Your task to perform on an android device: change the clock style Image 0: 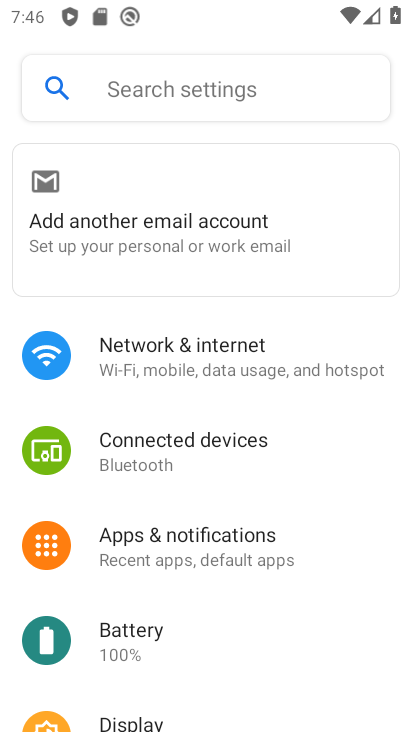
Step 0: press home button
Your task to perform on an android device: change the clock style Image 1: 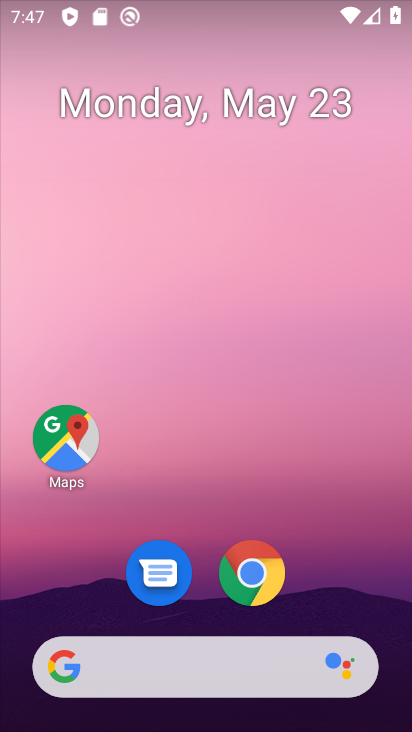
Step 1: drag from (327, 573) to (331, 129)
Your task to perform on an android device: change the clock style Image 2: 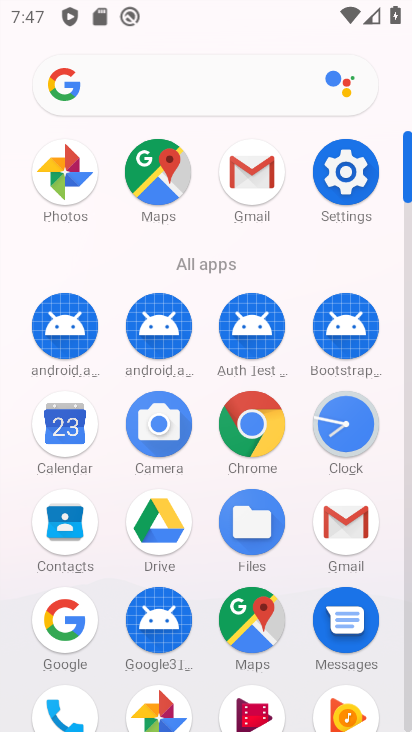
Step 2: click (354, 425)
Your task to perform on an android device: change the clock style Image 3: 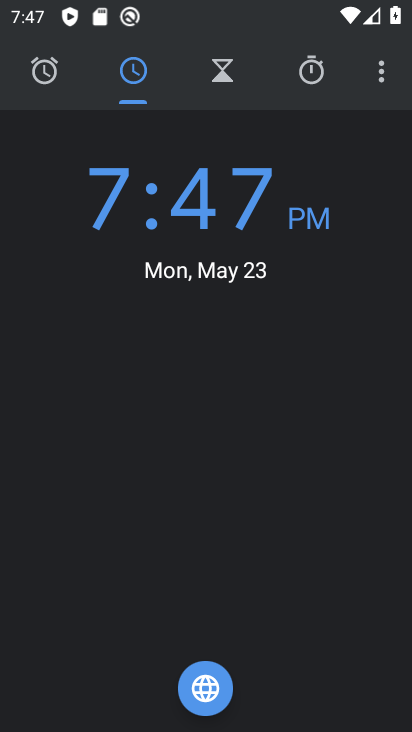
Step 3: click (373, 71)
Your task to perform on an android device: change the clock style Image 4: 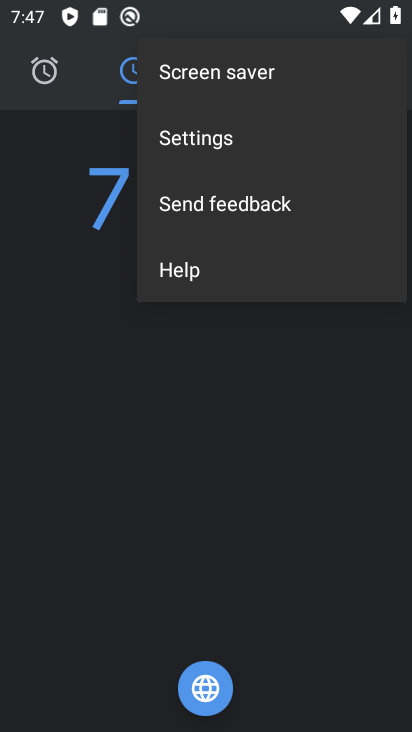
Step 4: click (258, 152)
Your task to perform on an android device: change the clock style Image 5: 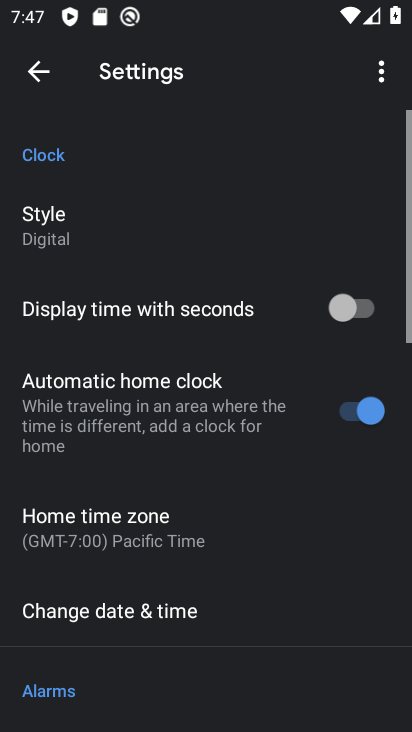
Step 5: click (139, 239)
Your task to perform on an android device: change the clock style Image 6: 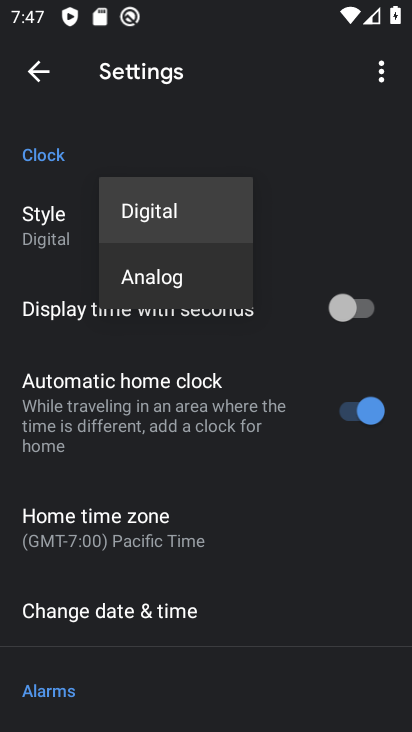
Step 6: click (165, 274)
Your task to perform on an android device: change the clock style Image 7: 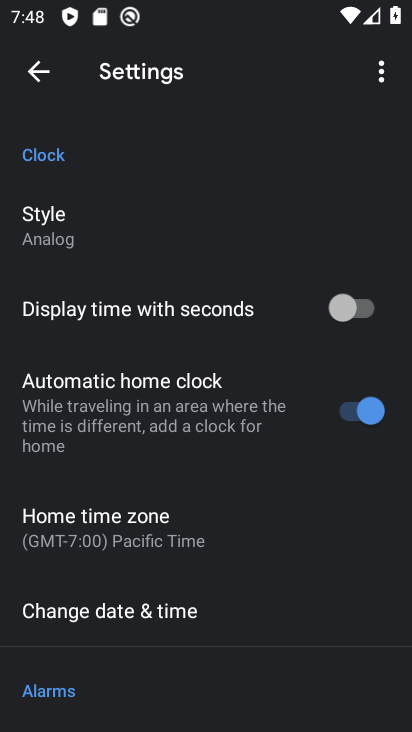
Step 7: task complete